Your task to perform on an android device: Go to battery settings Image 0: 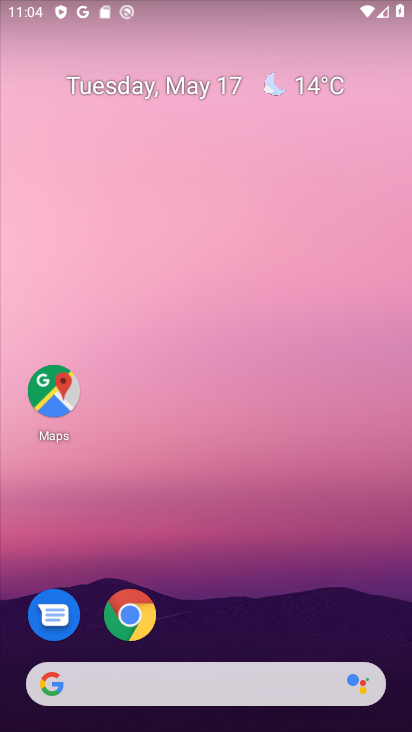
Step 0: drag from (238, 623) to (263, 153)
Your task to perform on an android device: Go to battery settings Image 1: 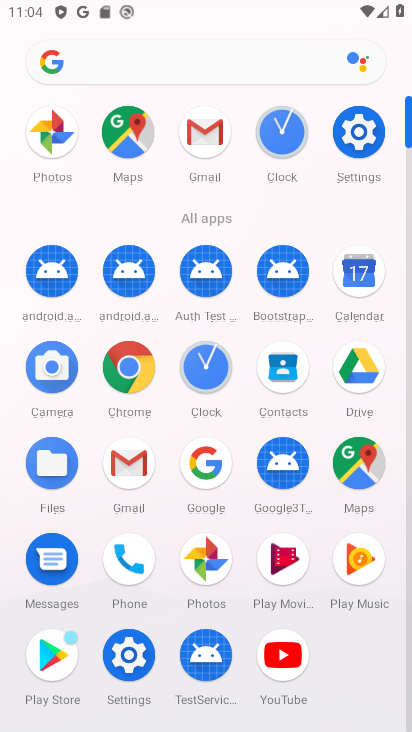
Step 1: click (358, 152)
Your task to perform on an android device: Go to battery settings Image 2: 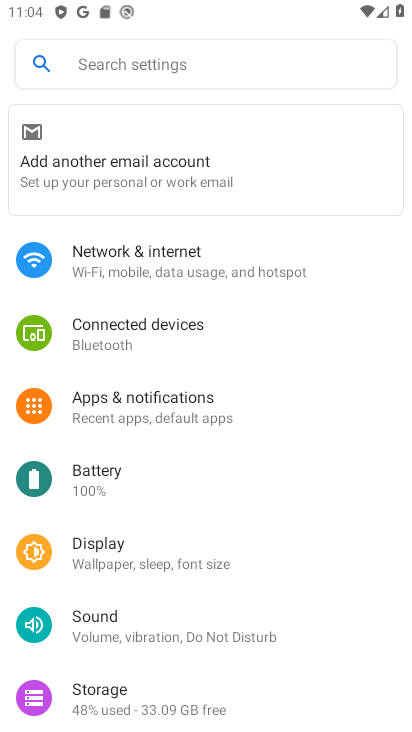
Step 2: drag from (203, 646) to (192, 401)
Your task to perform on an android device: Go to battery settings Image 3: 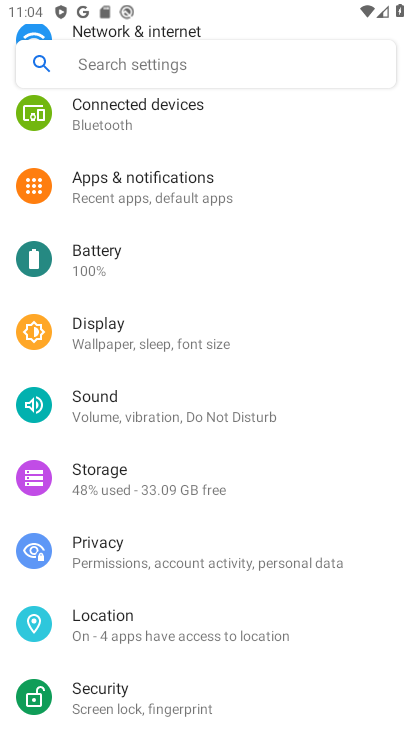
Step 3: click (112, 271)
Your task to perform on an android device: Go to battery settings Image 4: 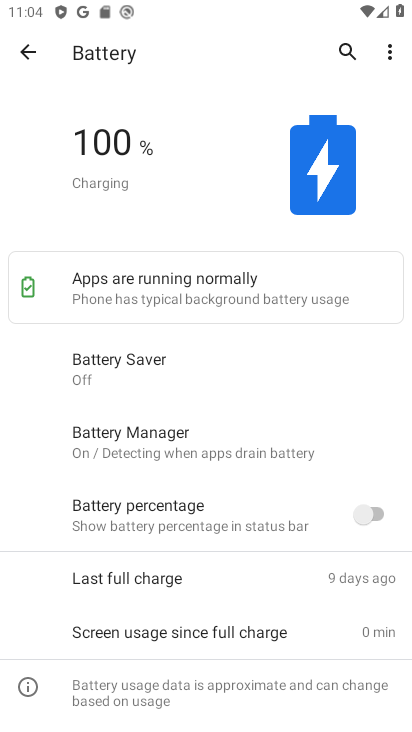
Step 4: task complete